Your task to perform on an android device: Is it going to rain tomorrow? Image 0: 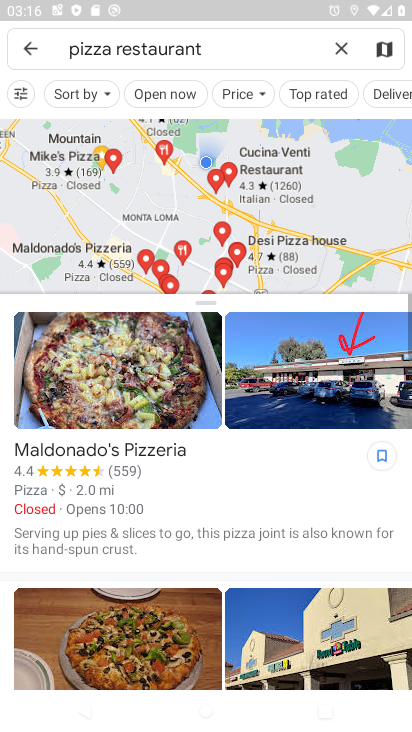
Step 0: press home button
Your task to perform on an android device: Is it going to rain tomorrow? Image 1: 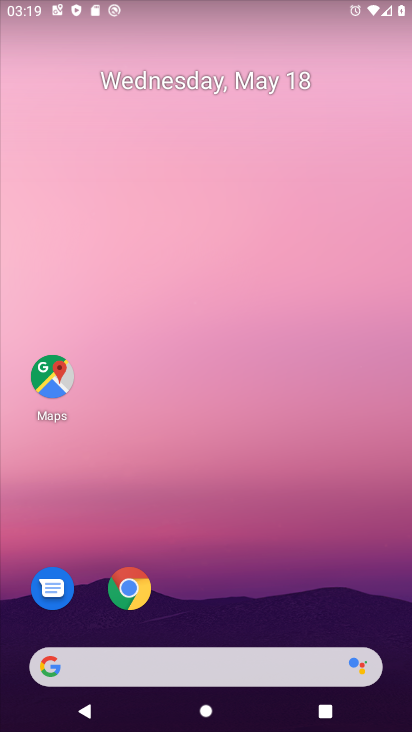
Step 1: click (188, 671)
Your task to perform on an android device: Is it going to rain tomorrow? Image 2: 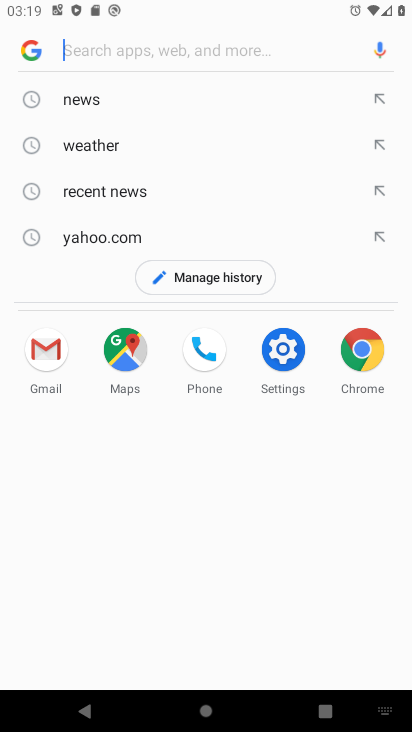
Step 2: click (77, 147)
Your task to perform on an android device: Is it going to rain tomorrow? Image 3: 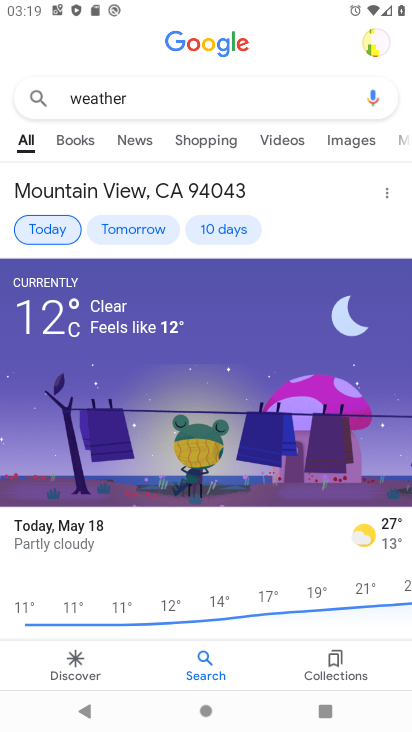
Step 3: click (138, 226)
Your task to perform on an android device: Is it going to rain tomorrow? Image 4: 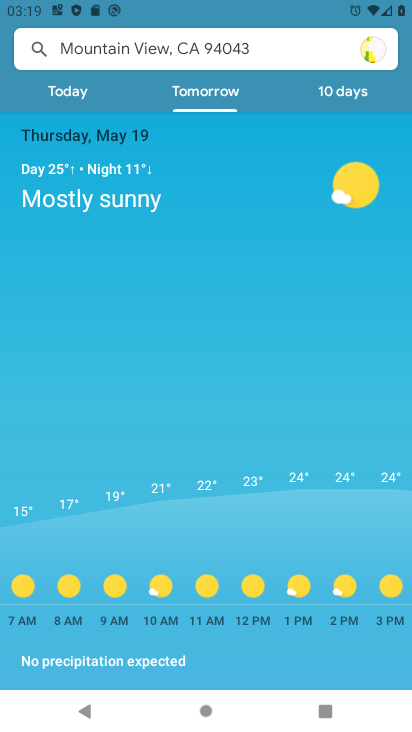
Step 4: task complete